Your task to perform on an android device: Do I have any events today? Image 0: 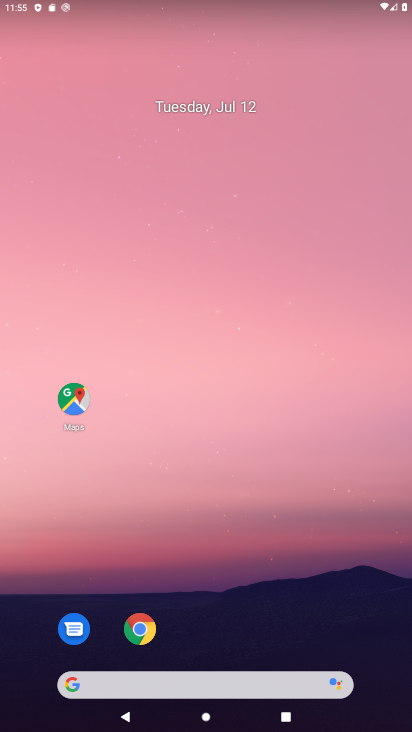
Step 0: drag from (190, 626) to (171, 157)
Your task to perform on an android device: Do I have any events today? Image 1: 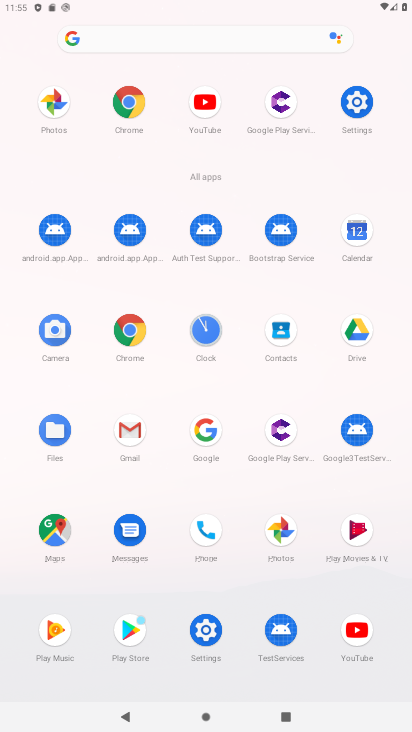
Step 1: click (348, 227)
Your task to perform on an android device: Do I have any events today? Image 2: 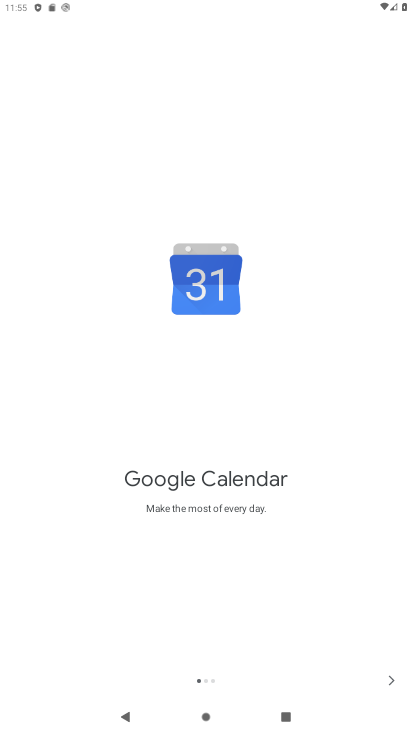
Step 2: click (381, 674)
Your task to perform on an android device: Do I have any events today? Image 3: 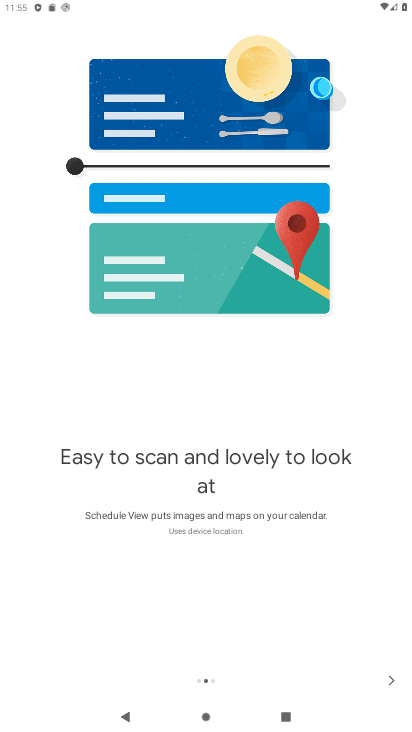
Step 3: click (374, 676)
Your task to perform on an android device: Do I have any events today? Image 4: 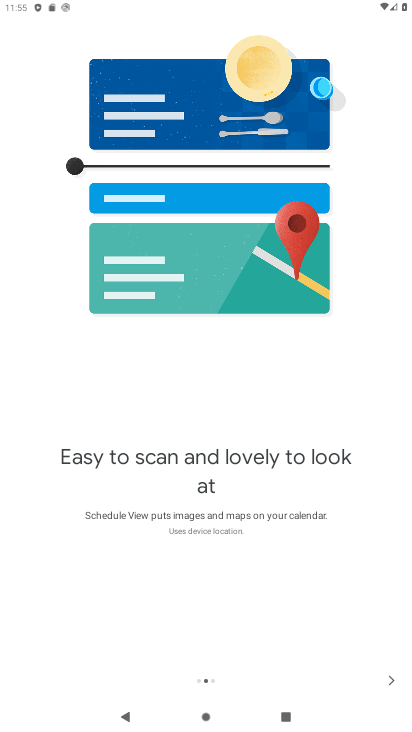
Step 4: click (374, 676)
Your task to perform on an android device: Do I have any events today? Image 5: 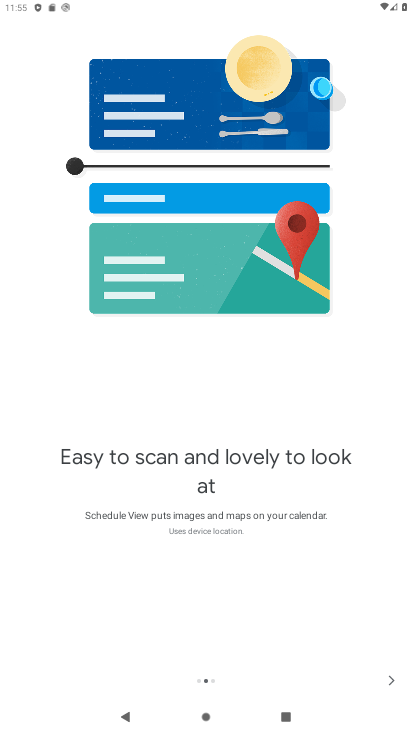
Step 5: click (384, 668)
Your task to perform on an android device: Do I have any events today? Image 6: 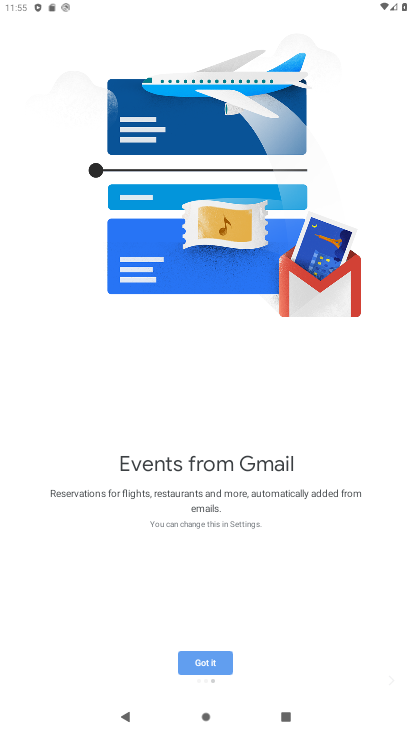
Step 6: click (386, 681)
Your task to perform on an android device: Do I have any events today? Image 7: 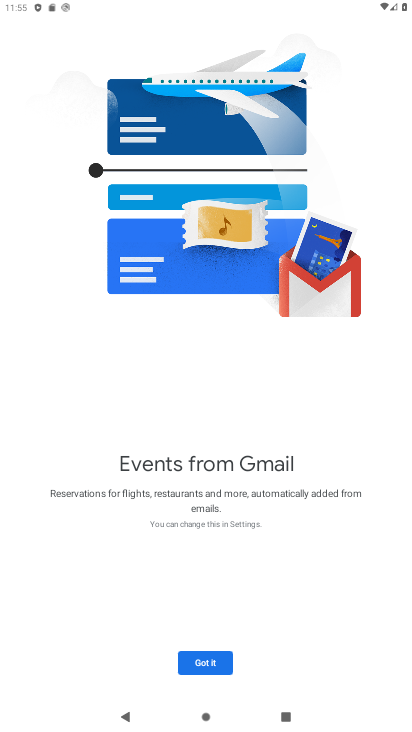
Step 7: click (213, 664)
Your task to perform on an android device: Do I have any events today? Image 8: 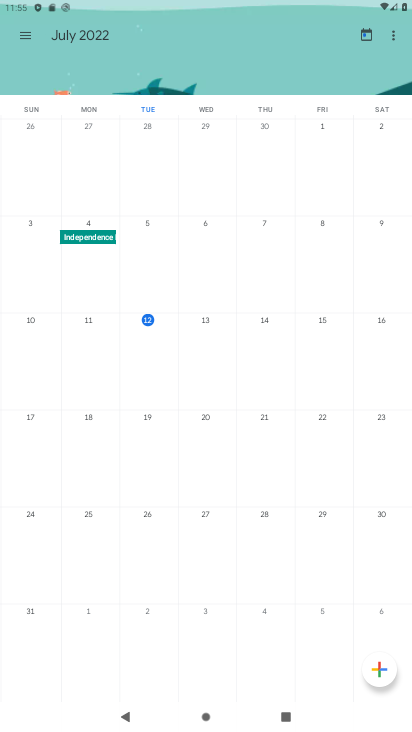
Step 8: click (14, 23)
Your task to perform on an android device: Do I have any events today? Image 9: 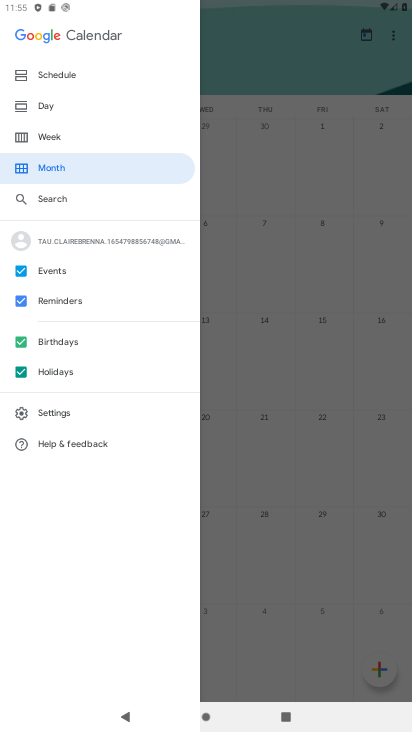
Step 9: click (68, 75)
Your task to perform on an android device: Do I have any events today? Image 10: 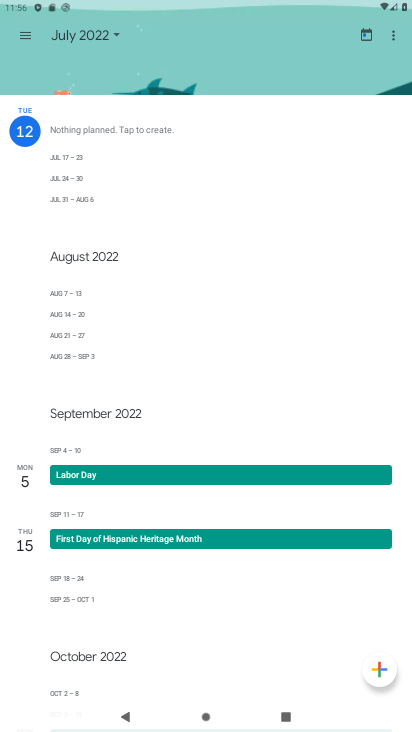
Step 10: task complete